Your task to perform on an android device: Go to location settings Image 0: 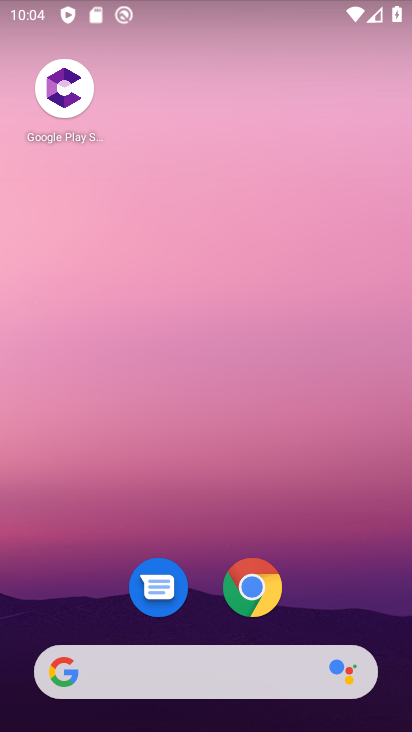
Step 0: drag from (308, 441) to (243, 133)
Your task to perform on an android device: Go to location settings Image 1: 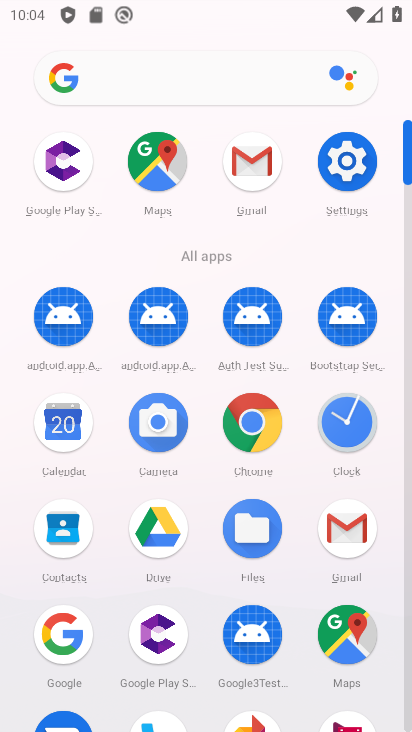
Step 1: click (354, 165)
Your task to perform on an android device: Go to location settings Image 2: 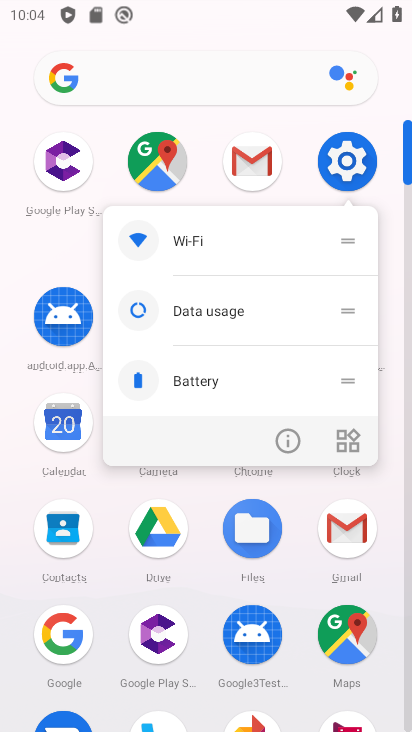
Step 2: click (354, 165)
Your task to perform on an android device: Go to location settings Image 3: 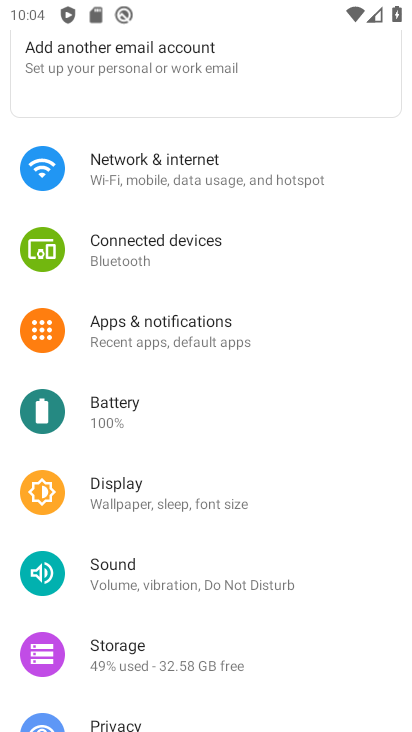
Step 3: drag from (161, 692) to (145, 302)
Your task to perform on an android device: Go to location settings Image 4: 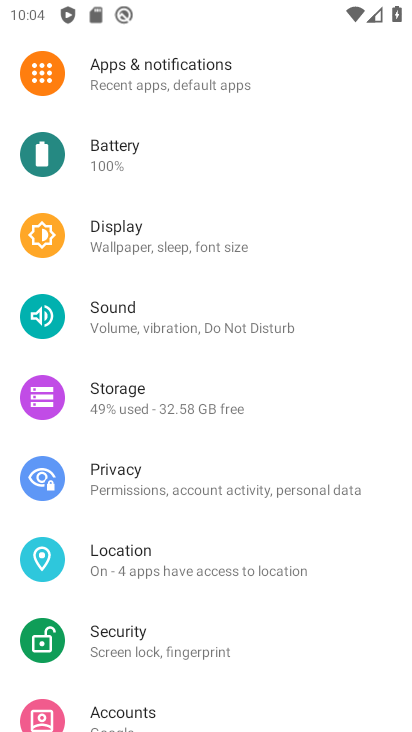
Step 4: click (116, 575)
Your task to perform on an android device: Go to location settings Image 5: 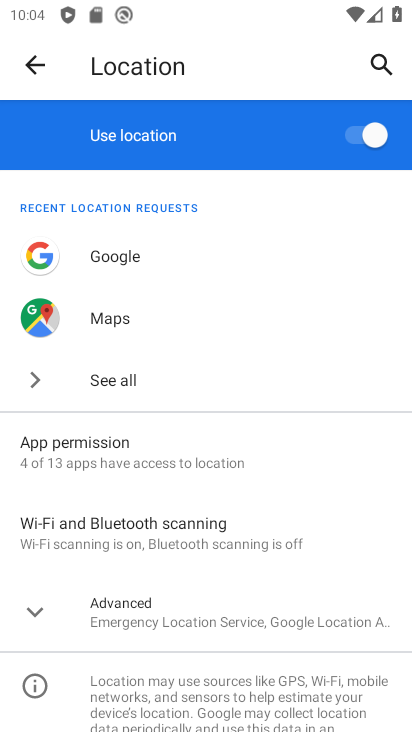
Step 5: task complete